Your task to perform on an android device: Open display settings Image 0: 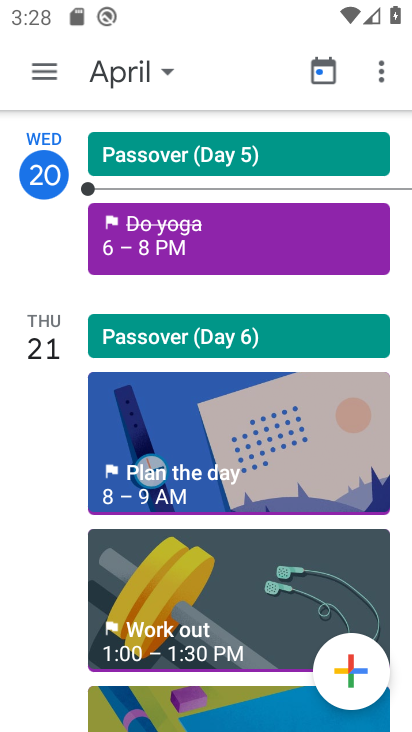
Step 0: press home button
Your task to perform on an android device: Open display settings Image 1: 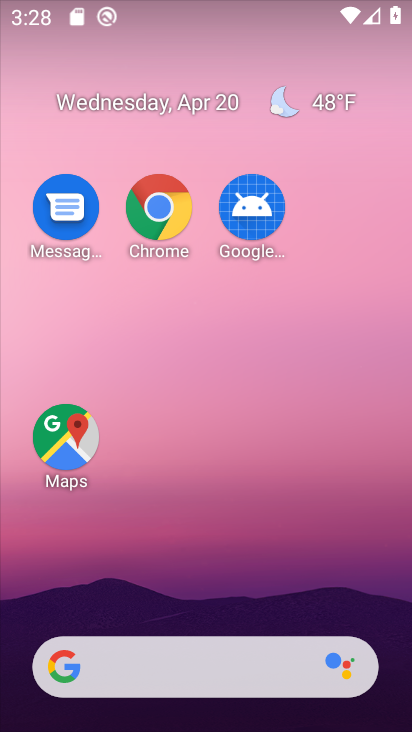
Step 1: drag from (310, 605) to (289, 30)
Your task to perform on an android device: Open display settings Image 2: 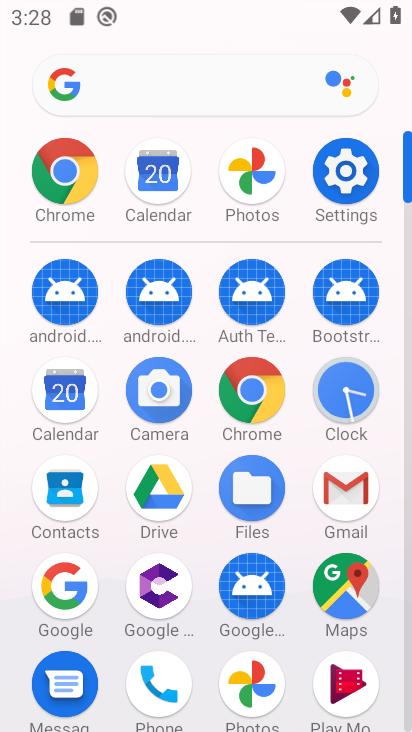
Step 2: click (347, 208)
Your task to perform on an android device: Open display settings Image 3: 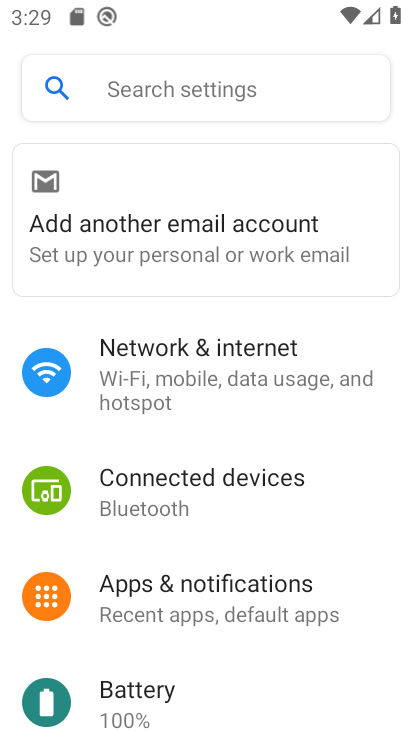
Step 3: drag from (165, 630) to (161, 518)
Your task to perform on an android device: Open display settings Image 4: 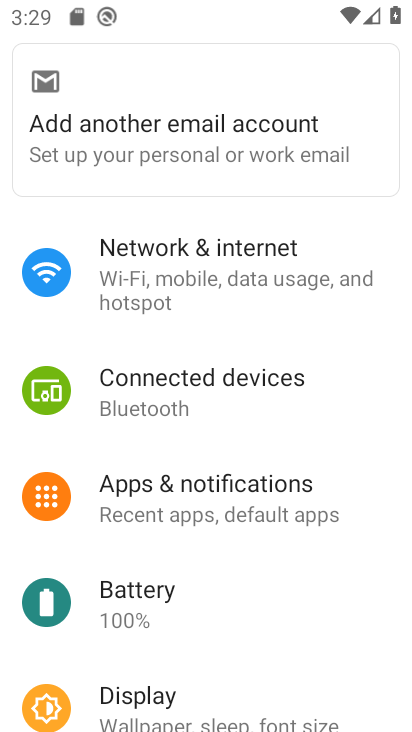
Step 4: click (202, 693)
Your task to perform on an android device: Open display settings Image 5: 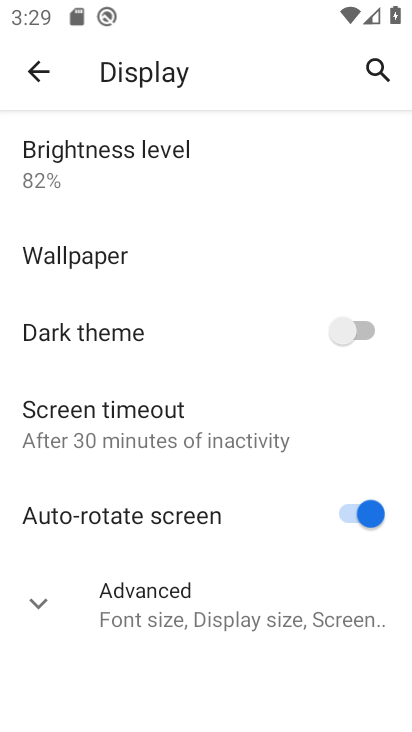
Step 5: task complete